Your task to perform on an android device: What's the weather? Image 0: 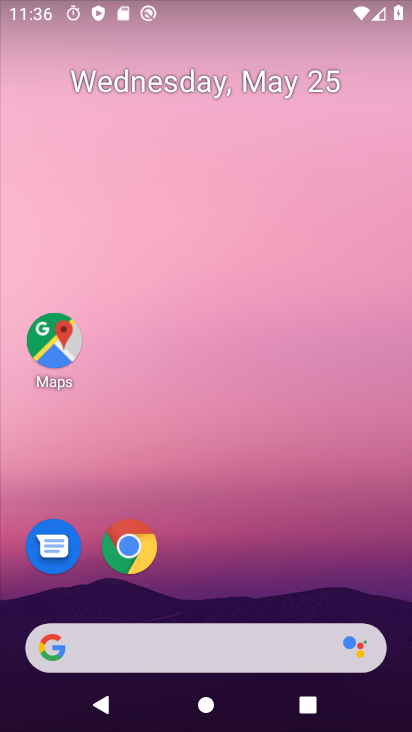
Step 0: click (134, 649)
Your task to perform on an android device: What's the weather? Image 1: 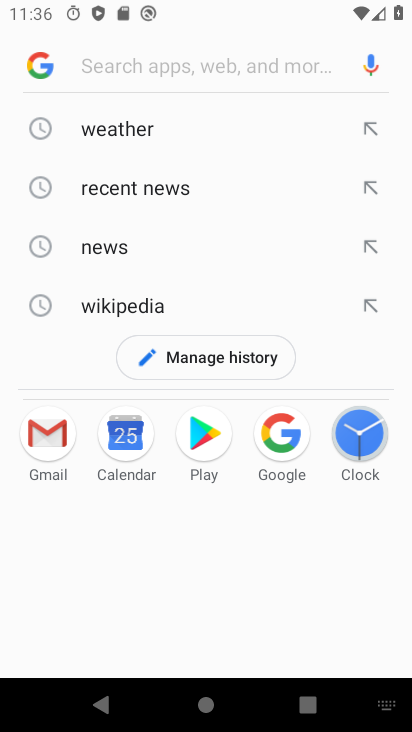
Step 1: type "what's the weather"
Your task to perform on an android device: What's the weather? Image 2: 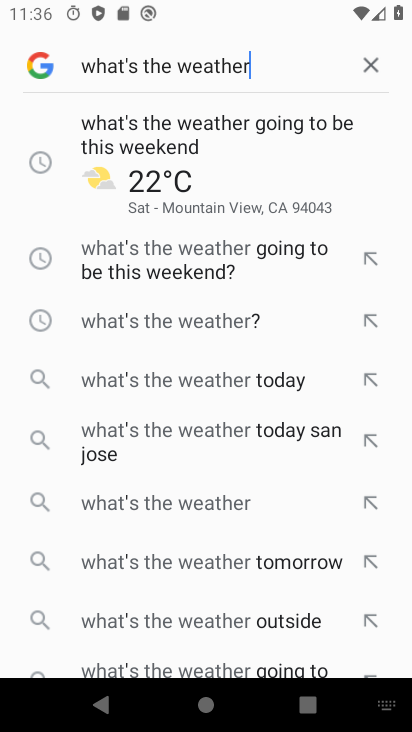
Step 2: click (143, 317)
Your task to perform on an android device: What's the weather? Image 3: 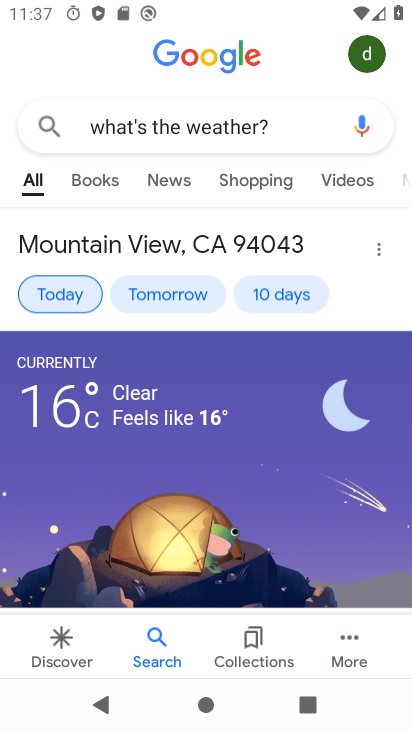
Step 3: task complete